Your task to perform on an android device: turn on bluetooth scan Image 0: 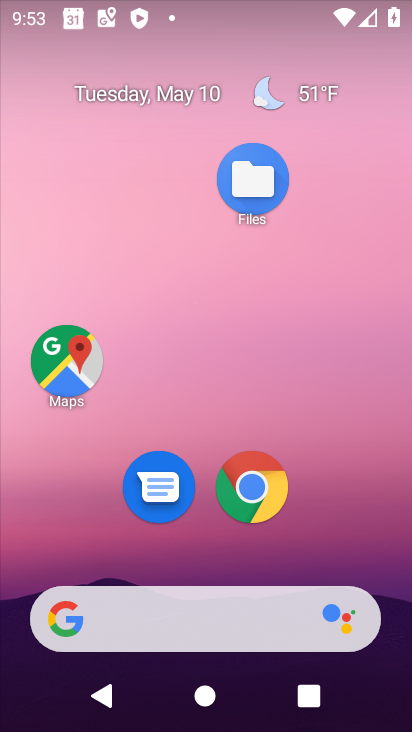
Step 0: drag from (220, 545) to (317, 43)
Your task to perform on an android device: turn on bluetooth scan Image 1: 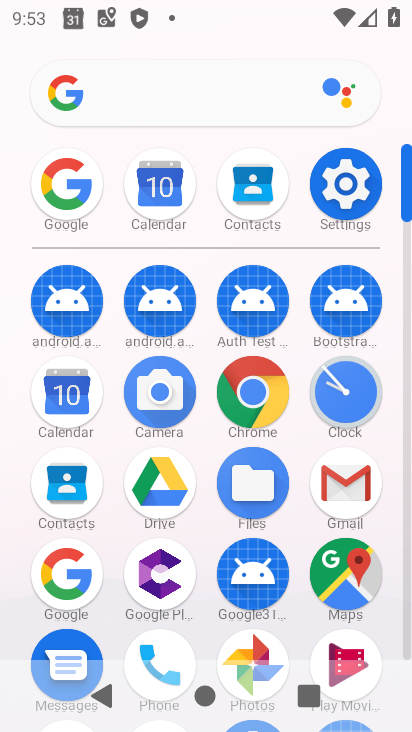
Step 1: click (347, 187)
Your task to perform on an android device: turn on bluetooth scan Image 2: 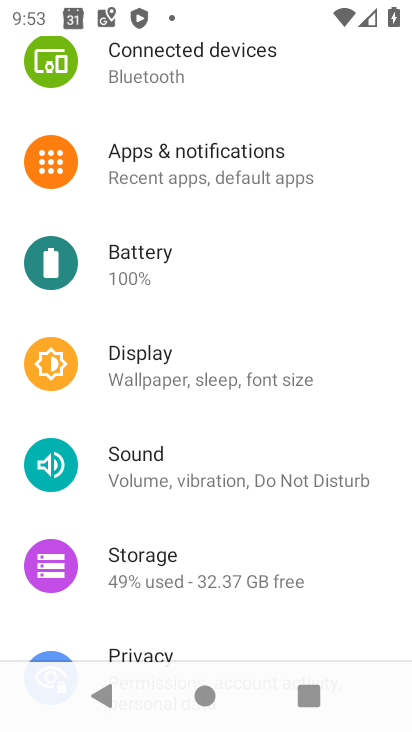
Step 2: drag from (164, 623) to (238, 178)
Your task to perform on an android device: turn on bluetooth scan Image 3: 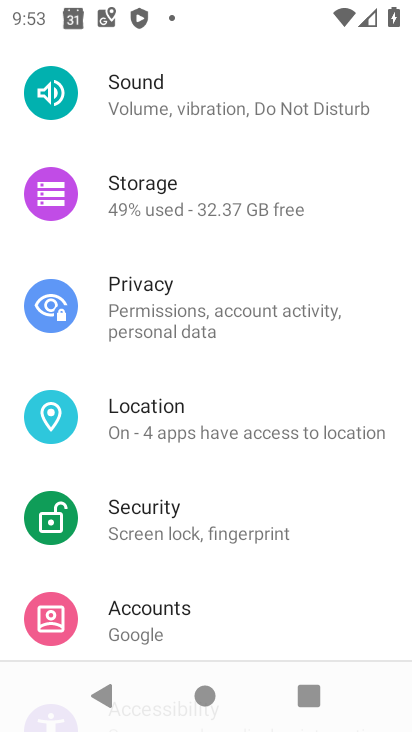
Step 3: click (169, 420)
Your task to perform on an android device: turn on bluetooth scan Image 4: 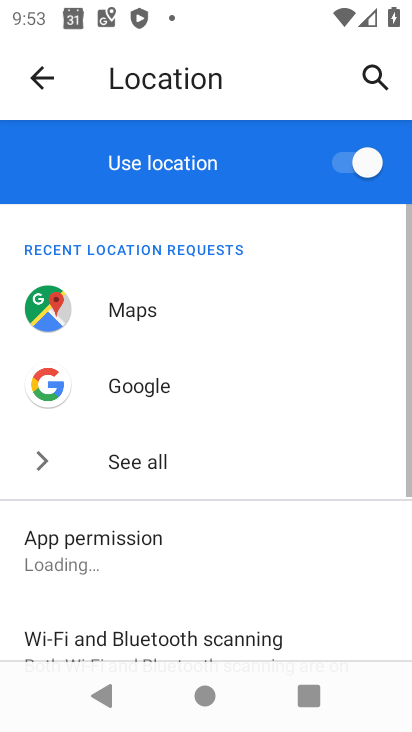
Step 4: drag from (214, 625) to (207, 355)
Your task to perform on an android device: turn on bluetooth scan Image 5: 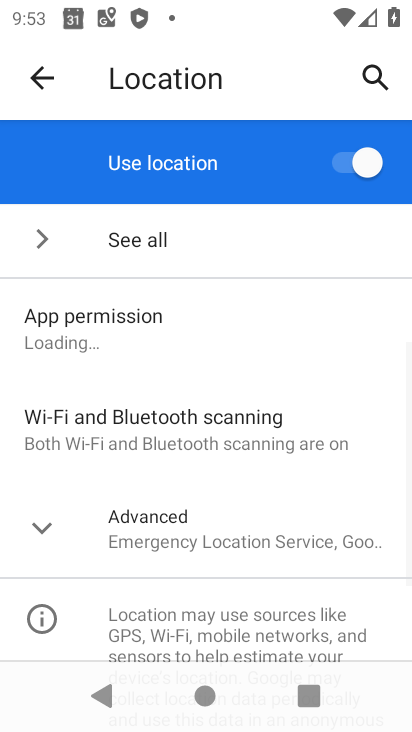
Step 5: click (156, 425)
Your task to perform on an android device: turn on bluetooth scan Image 6: 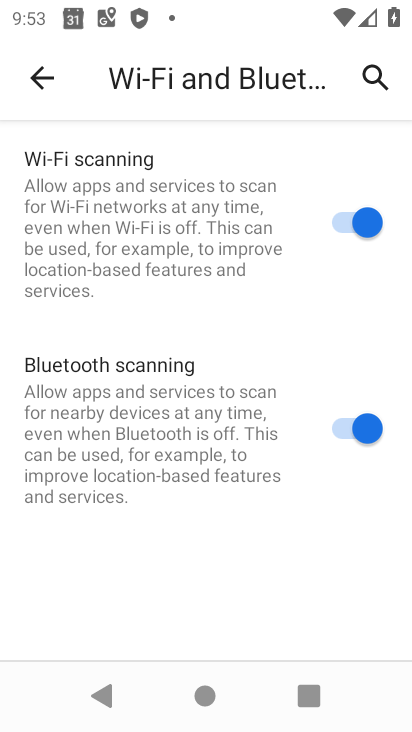
Step 6: task complete